Your task to perform on an android device: Turn on the flashlight Image 0: 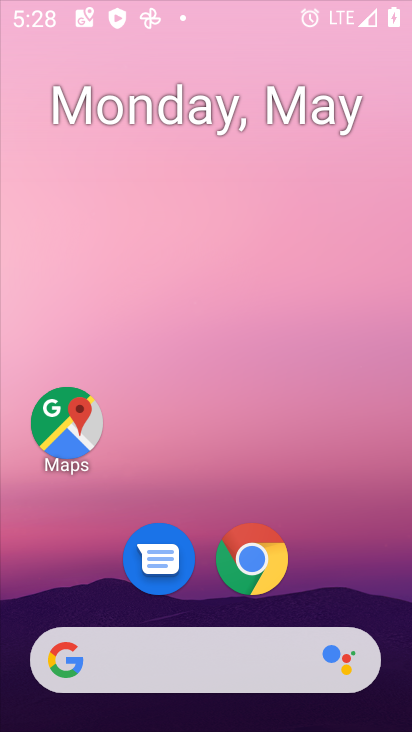
Step 0: drag from (315, 649) to (353, 24)
Your task to perform on an android device: Turn on the flashlight Image 1: 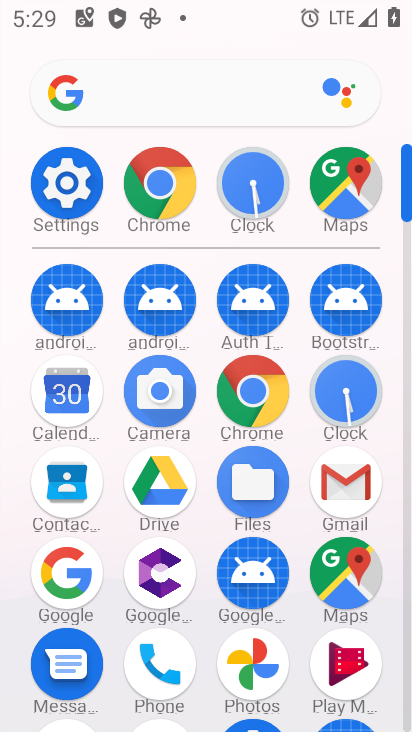
Step 1: task complete